Your task to perform on an android device: find photos in the google photos app Image 0: 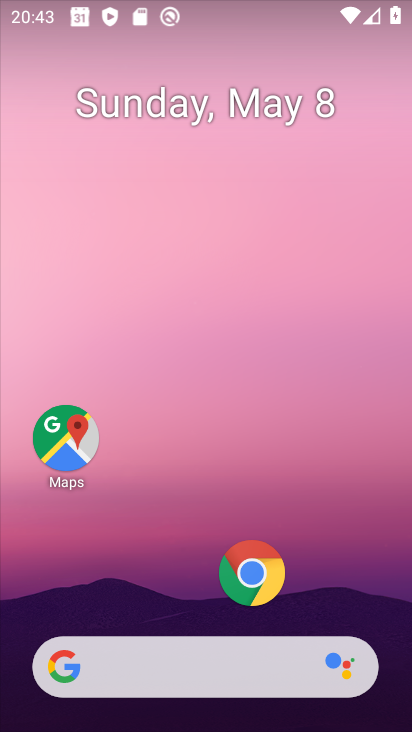
Step 0: drag from (99, 600) to (112, 244)
Your task to perform on an android device: find photos in the google photos app Image 1: 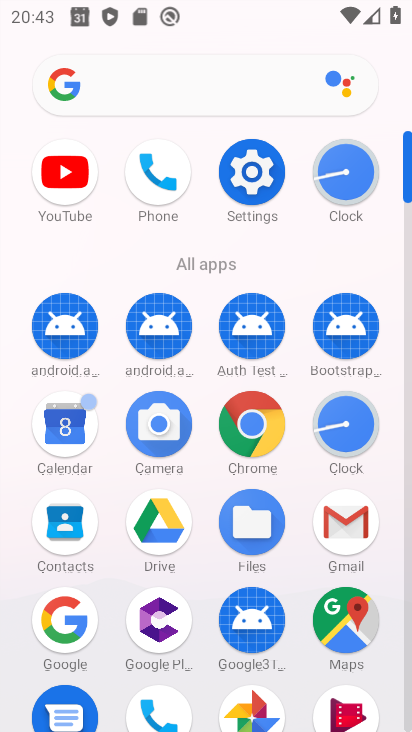
Step 1: click (256, 702)
Your task to perform on an android device: find photos in the google photos app Image 2: 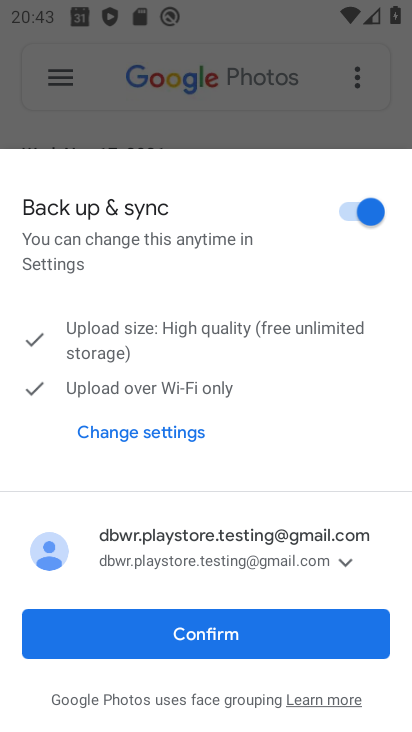
Step 2: click (238, 637)
Your task to perform on an android device: find photos in the google photos app Image 3: 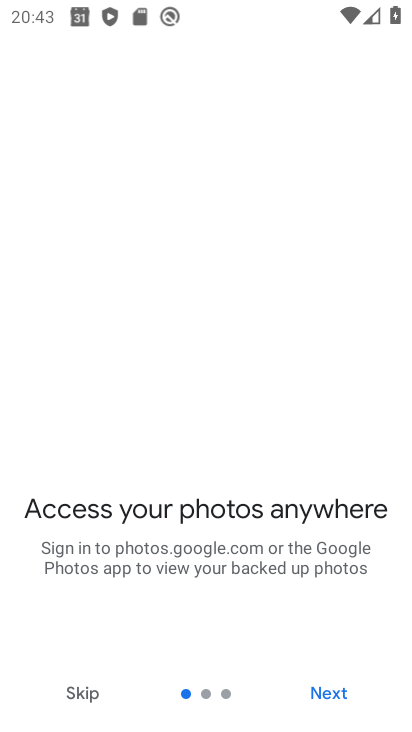
Step 3: click (327, 683)
Your task to perform on an android device: find photos in the google photos app Image 4: 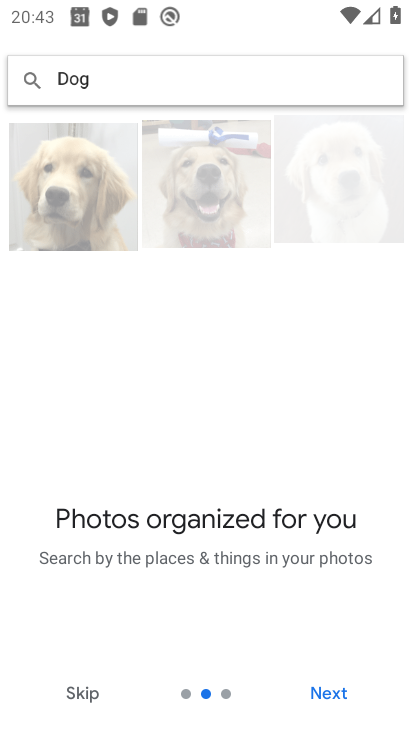
Step 4: click (316, 693)
Your task to perform on an android device: find photos in the google photos app Image 5: 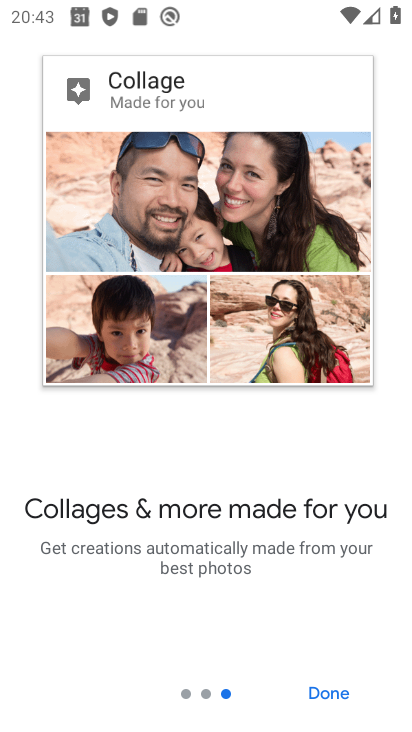
Step 5: click (329, 695)
Your task to perform on an android device: find photos in the google photos app Image 6: 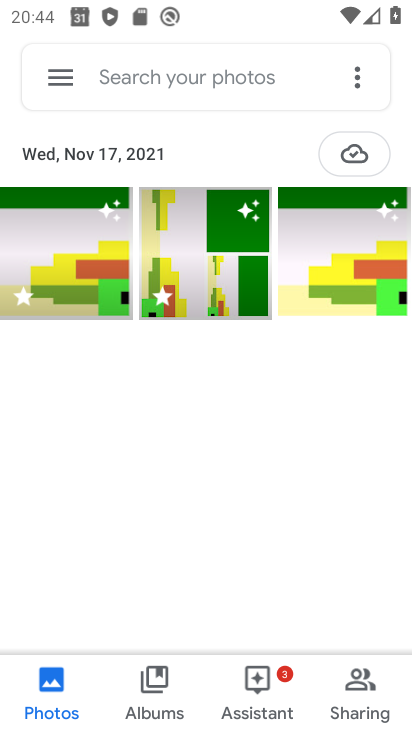
Step 6: task complete